Your task to perform on an android device: Open settings Image 0: 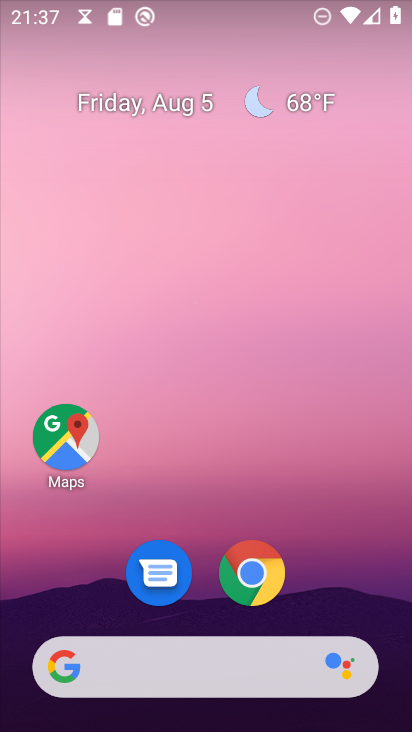
Step 0: drag from (214, 660) to (334, 198)
Your task to perform on an android device: Open settings Image 1: 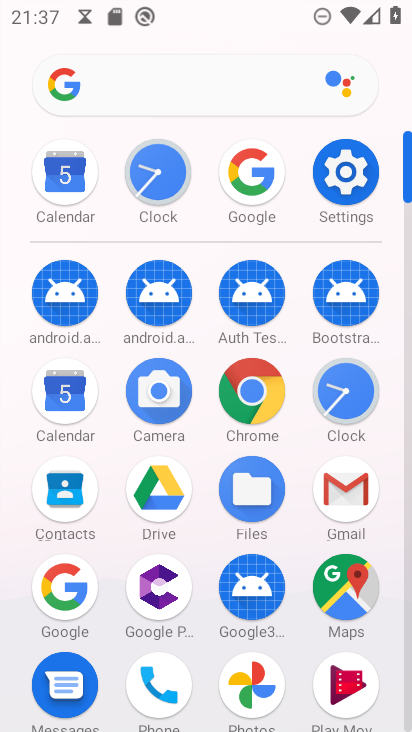
Step 1: click (347, 173)
Your task to perform on an android device: Open settings Image 2: 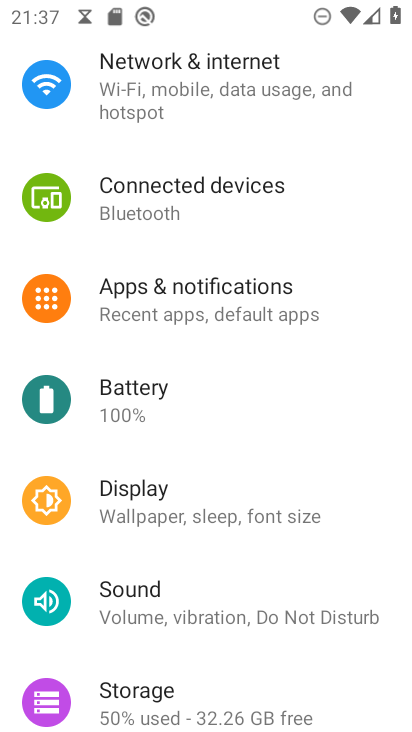
Step 2: task complete